Your task to perform on an android device: open app "Nova Launcher" (install if not already installed) Image 0: 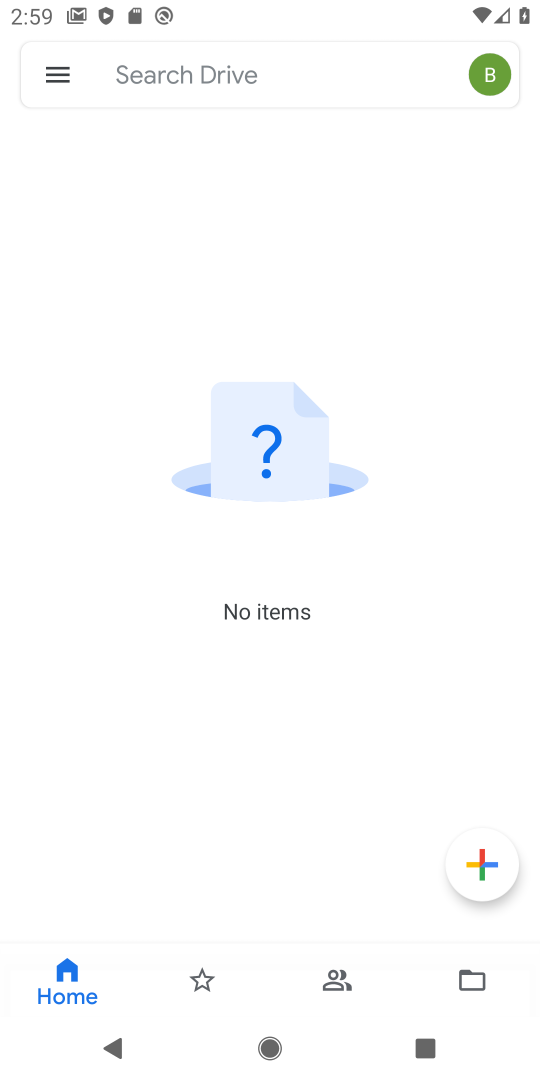
Step 0: press home button
Your task to perform on an android device: open app "Nova Launcher" (install if not already installed) Image 1: 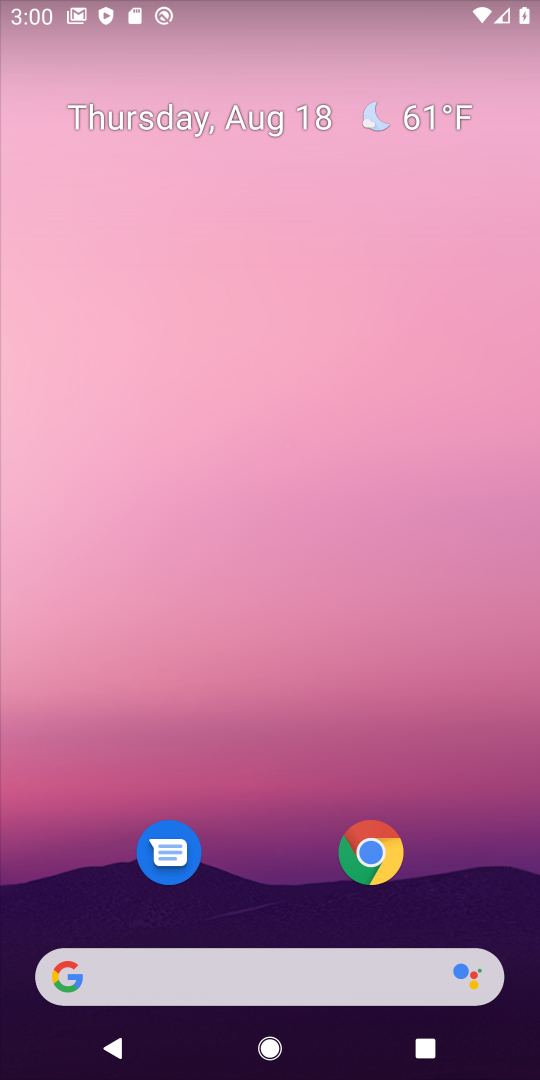
Step 1: drag from (273, 908) to (339, 55)
Your task to perform on an android device: open app "Nova Launcher" (install if not already installed) Image 2: 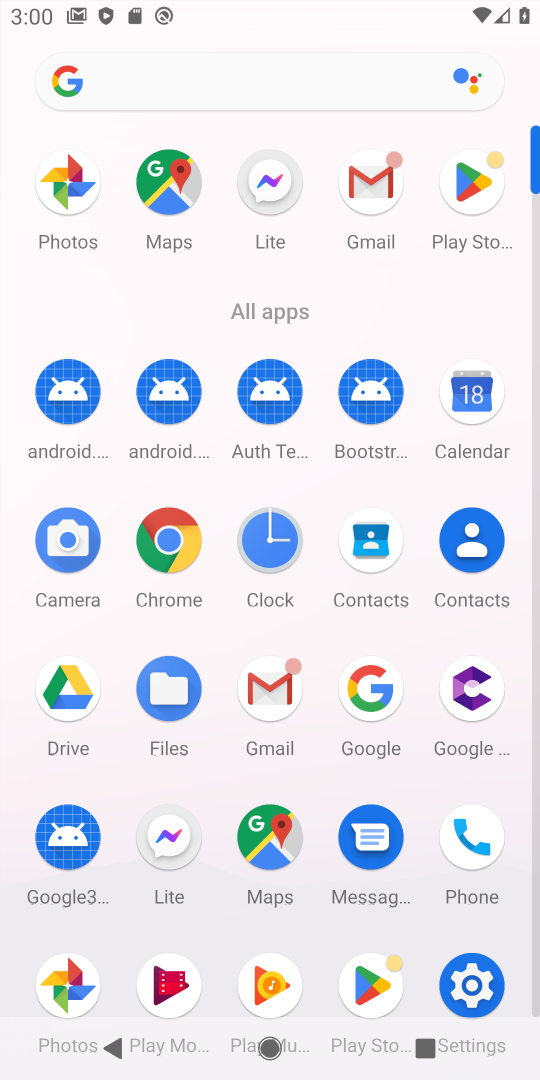
Step 2: click (478, 179)
Your task to perform on an android device: open app "Nova Launcher" (install if not already installed) Image 3: 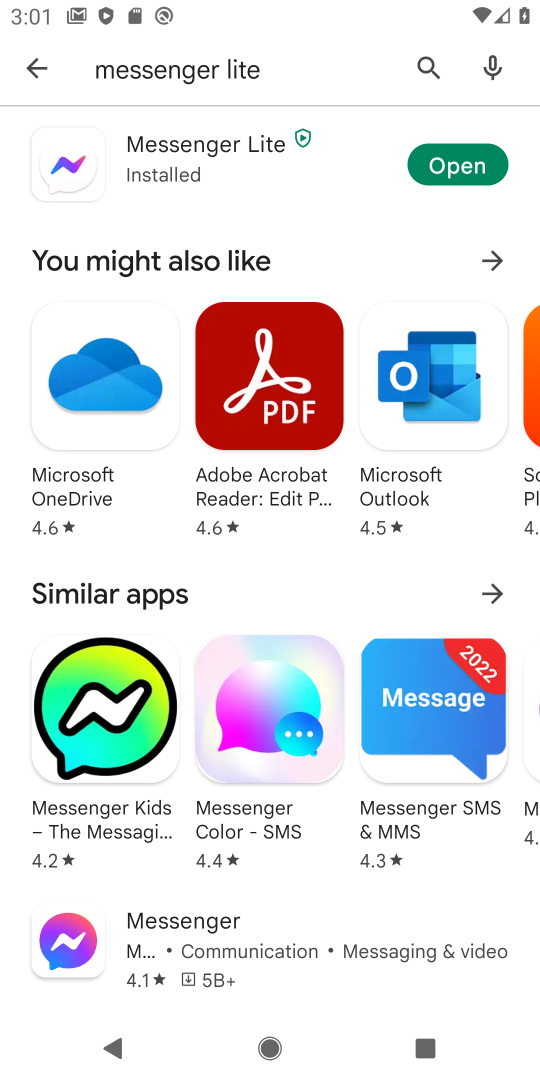
Step 3: click (425, 52)
Your task to perform on an android device: open app "Nova Launcher" (install if not already installed) Image 4: 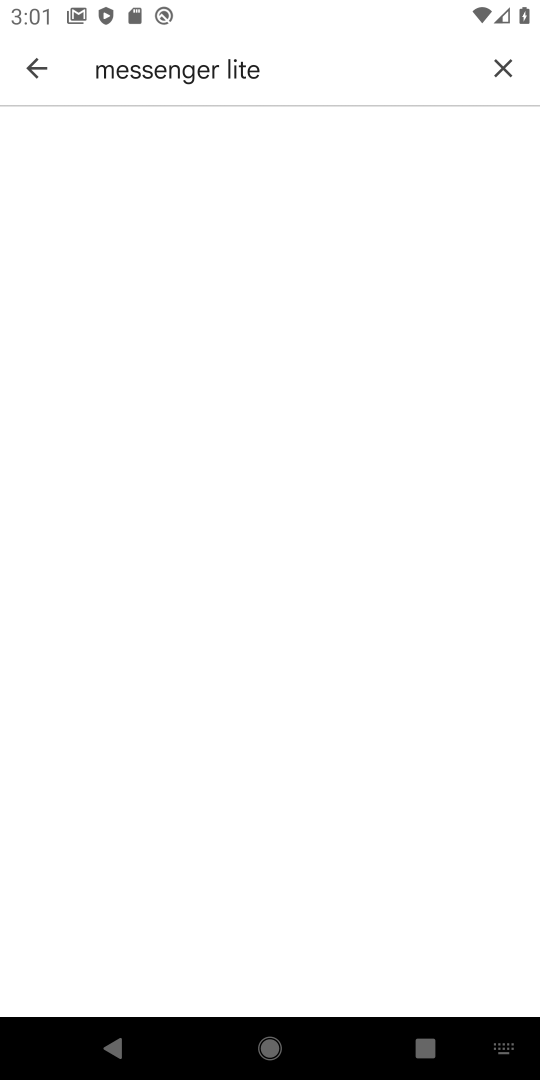
Step 4: click (431, 63)
Your task to perform on an android device: open app "Nova Launcher" (install if not already installed) Image 5: 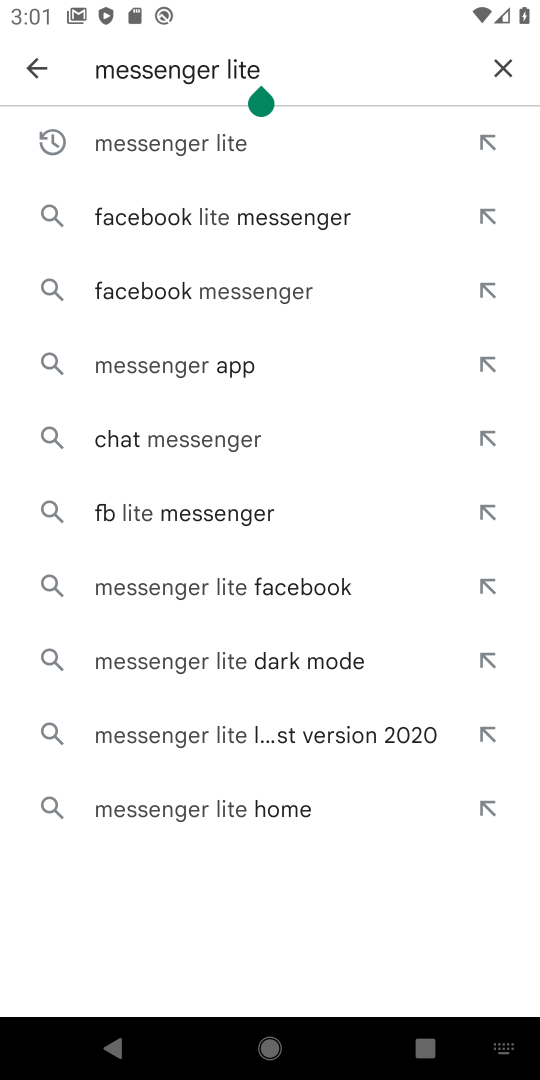
Step 5: click (496, 69)
Your task to perform on an android device: open app "Nova Launcher" (install if not already installed) Image 6: 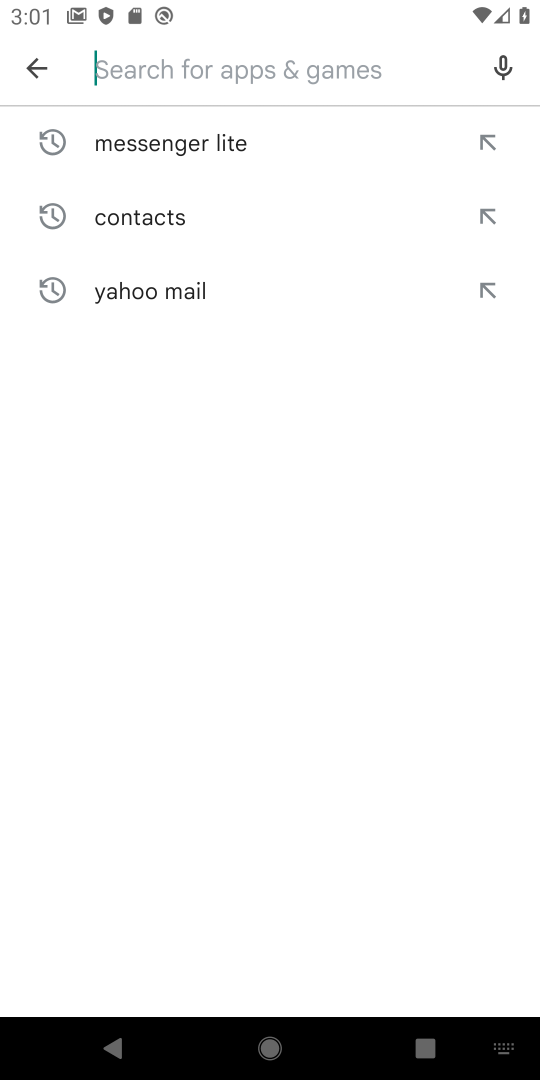
Step 6: type "Nova Launcher"
Your task to perform on an android device: open app "Nova Launcher" (install if not already installed) Image 7: 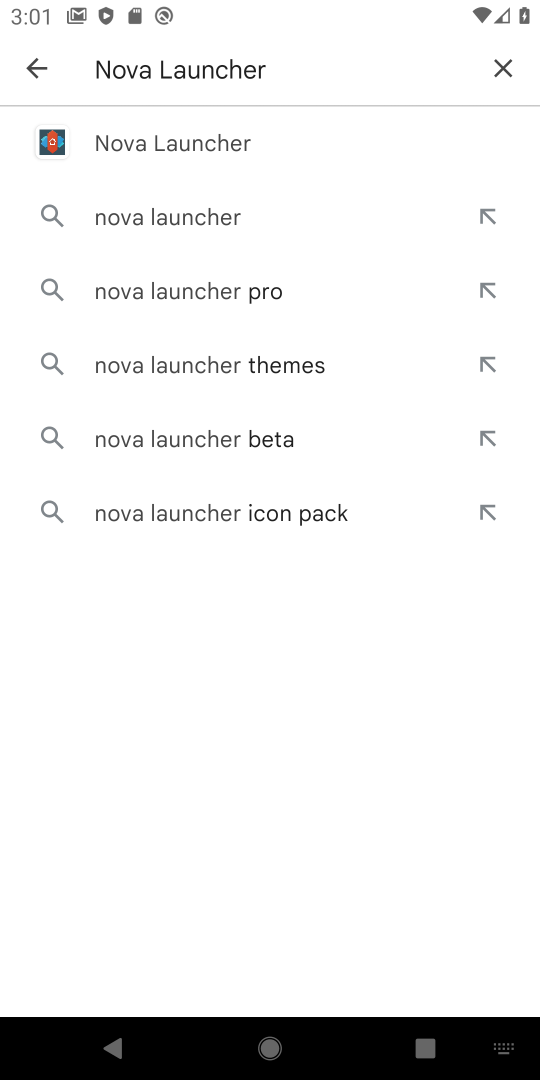
Step 7: click (91, 142)
Your task to perform on an android device: open app "Nova Launcher" (install if not already installed) Image 8: 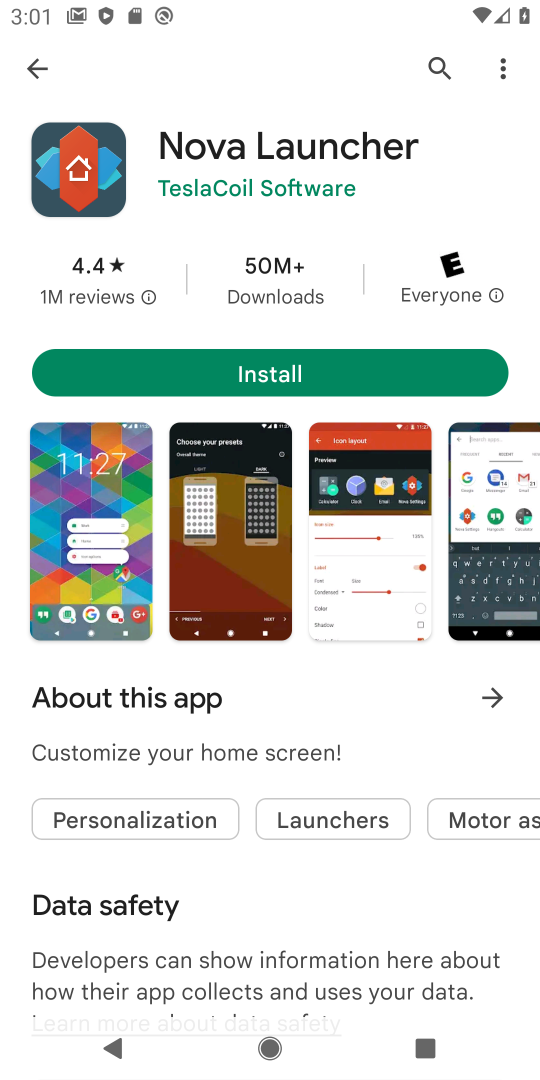
Step 8: click (280, 370)
Your task to perform on an android device: open app "Nova Launcher" (install if not already installed) Image 9: 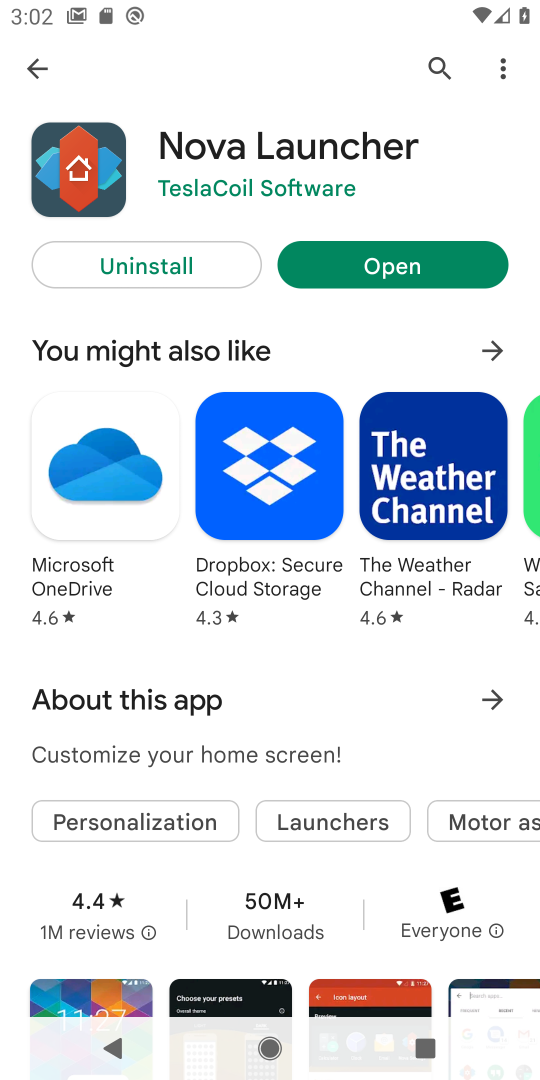
Step 9: click (391, 264)
Your task to perform on an android device: open app "Nova Launcher" (install if not already installed) Image 10: 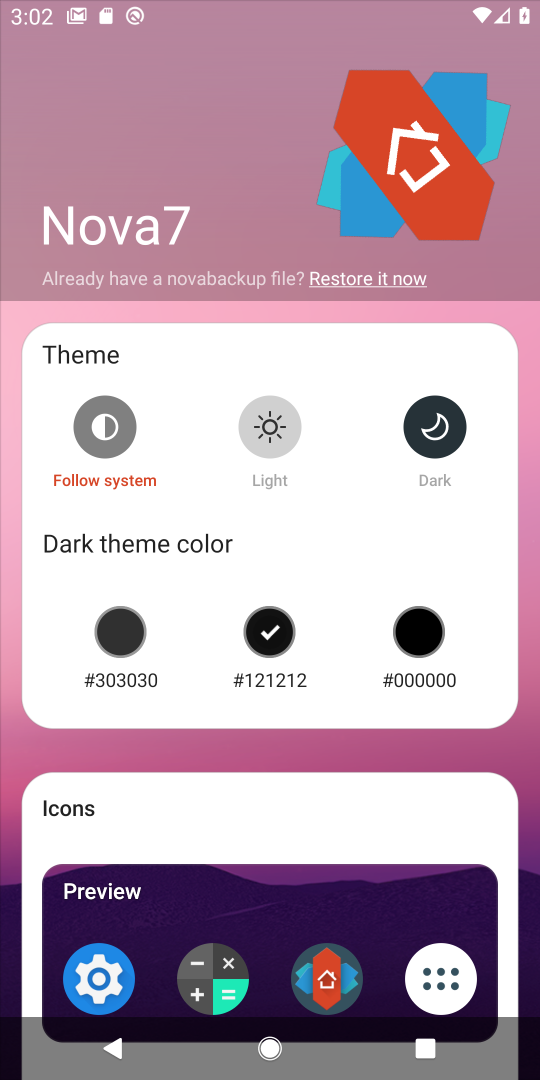
Step 10: task complete